Your task to perform on an android device: What's the weather? Image 0: 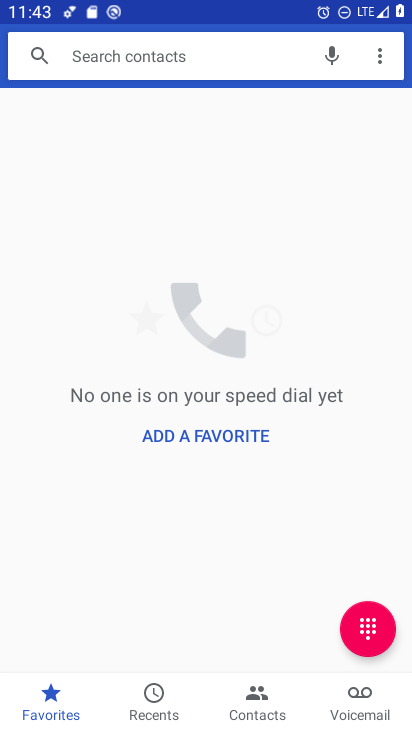
Step 0: press home button
Your task to perform on an android device: What's the weather? Image 1: 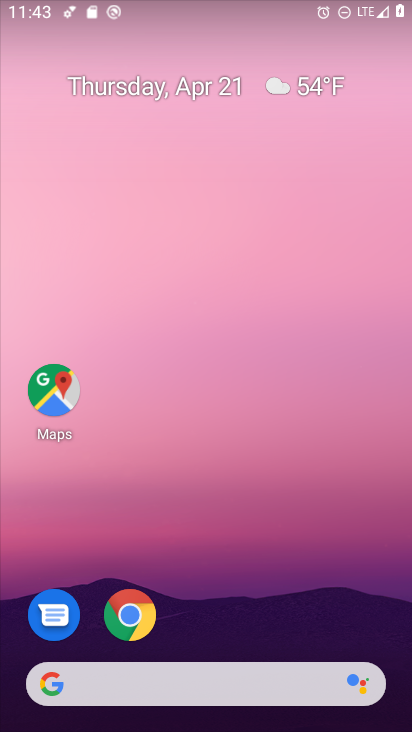
Step 1: drag from (231, 624) to (254, 65)
Your task to perform on an android device: What's the weather? Image 2: 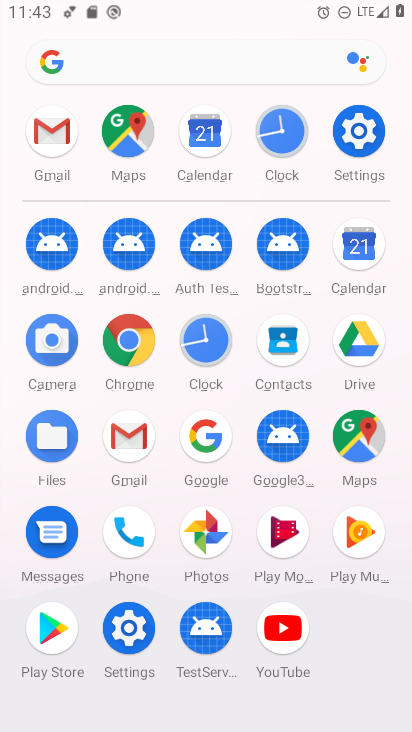
Step 2: click (151, 68)
Your task to perform on an android device: What's the weather? Image 3: 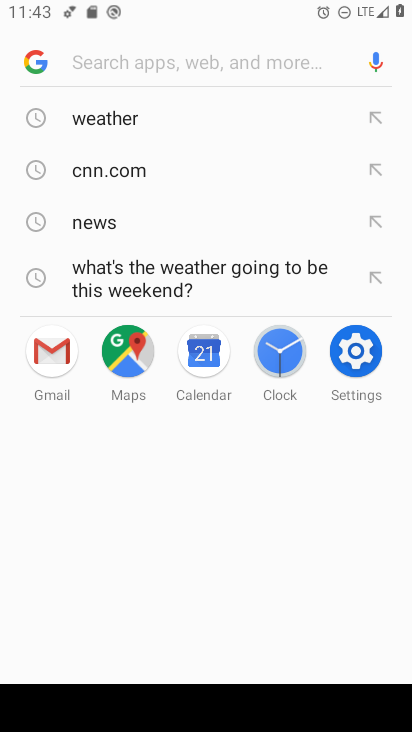
Step 3: type "what's the weather"
Your task to perform on an android device: What's the weather? Image 4: 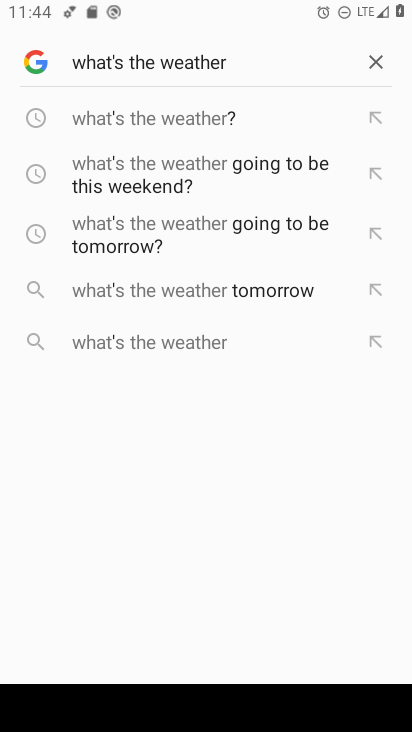
Step 4: click (215, 127)
Your task to perform on an android device: What's the weather? Image 5: 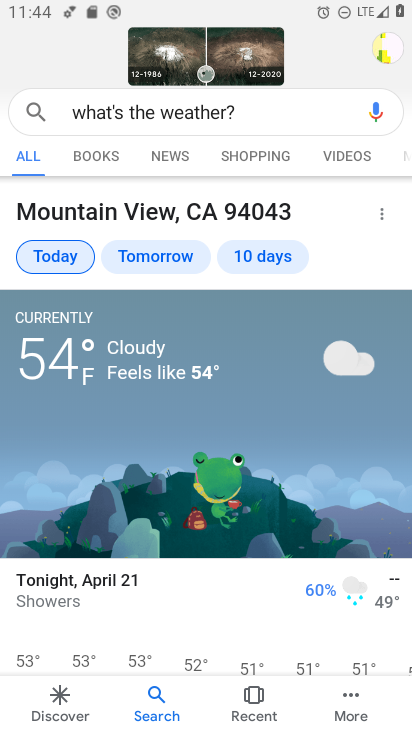
Step 5: task complete